Your task to perform on an android device: turn off smart reply in the gmail app Image 0: 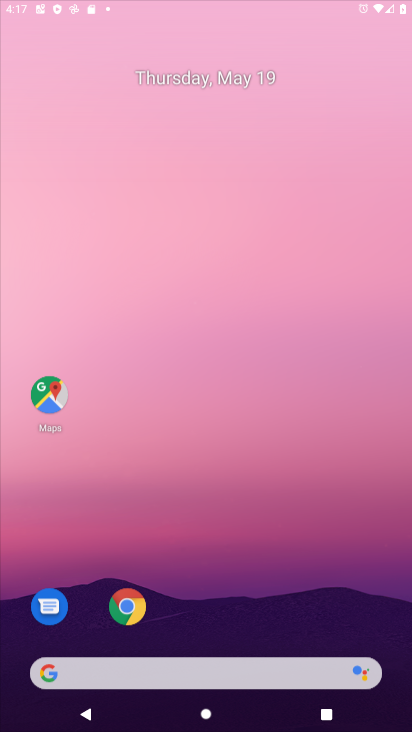
Step 0: click (224, 118)
Your task to perform on an android device: turn off smart reply in the gmail app Image 1: 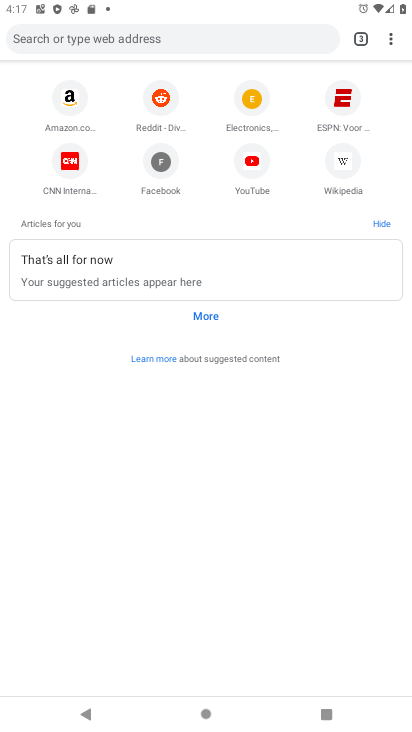
Step 1: press home button
Your task to perform on an android device: turn off smart reply in the gmail app Image 2: 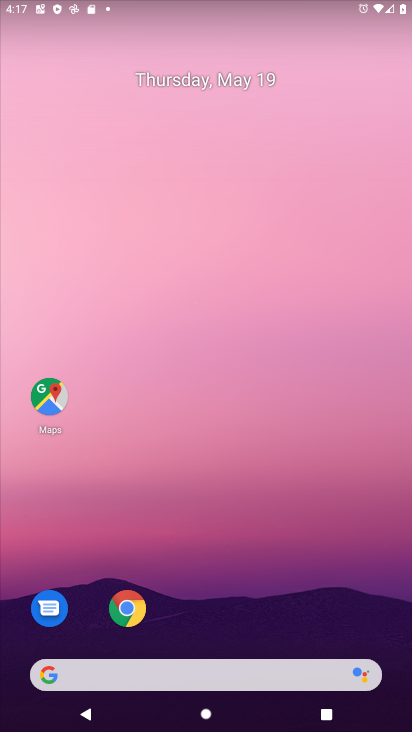
Step 2: drag from (275, 622) to (231, 26)
Your task to perform on an android device: turn off smart reply in the gmail app Image 3: 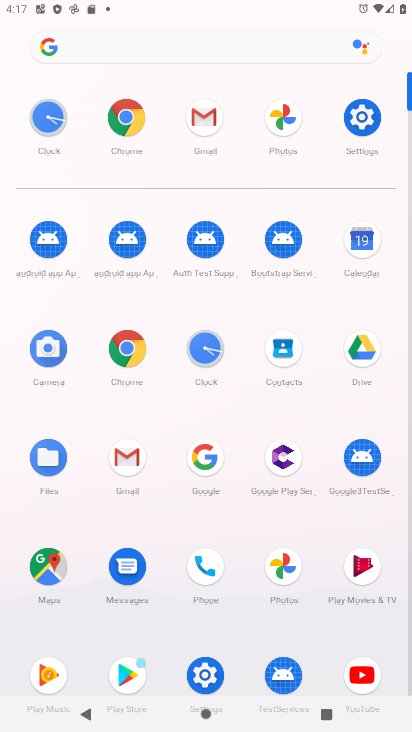
Step 3: click (374, 255)
Your task to perform on an android device: turn off smart reply in the gmail app Image 4: 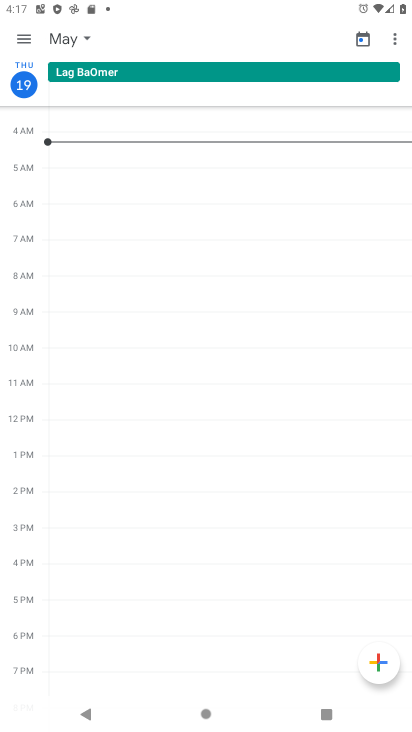
Step 4: click (88, 728)
Your task to perform on an android device: turn off smart reply in the gmail app Image 5: 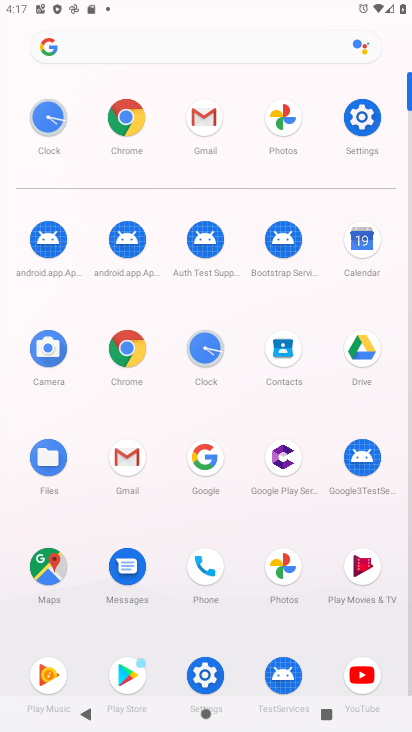
Step 5: click (272, 372)
Your task to perform on an android device: turn off smart reply in the gmail app Image 6: 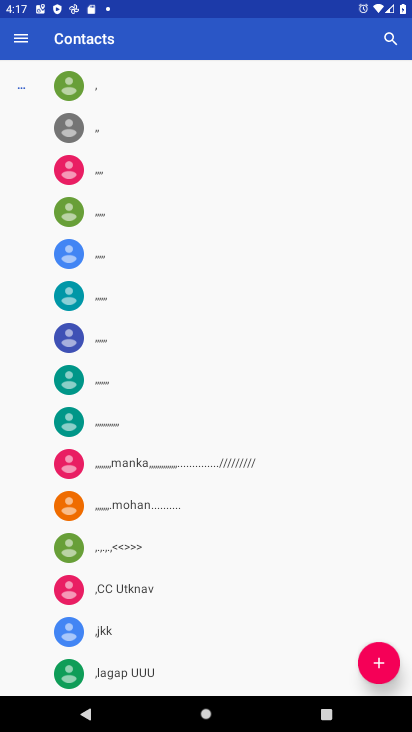
Step 6: task complete